Your task to perform on an android device: Open calendar and show me the fourth week of next month Image 0: 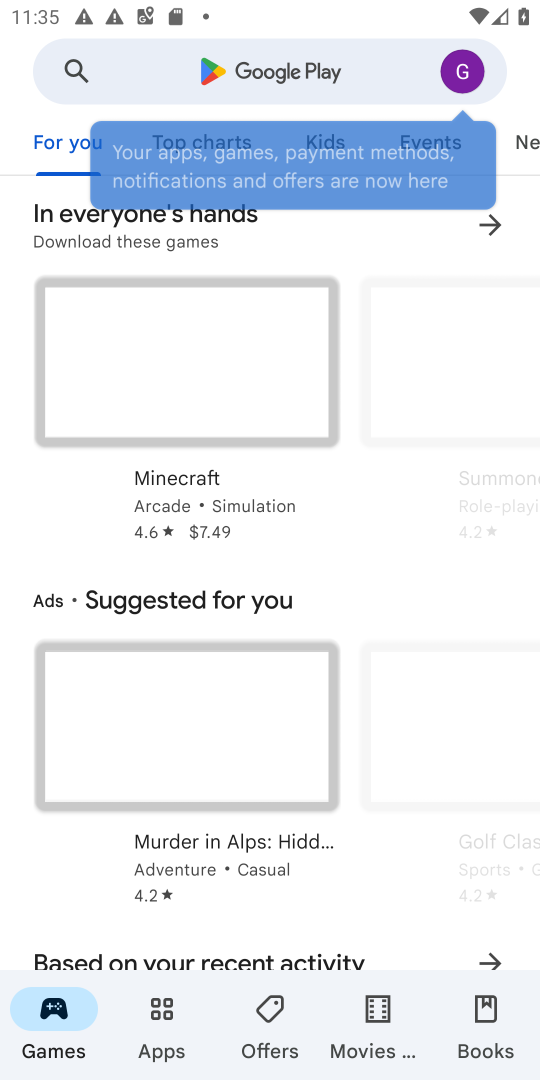
Step 0: press home button
Your task to perform on an android device: Open calendar and show me the fourth week of next month Image 1: 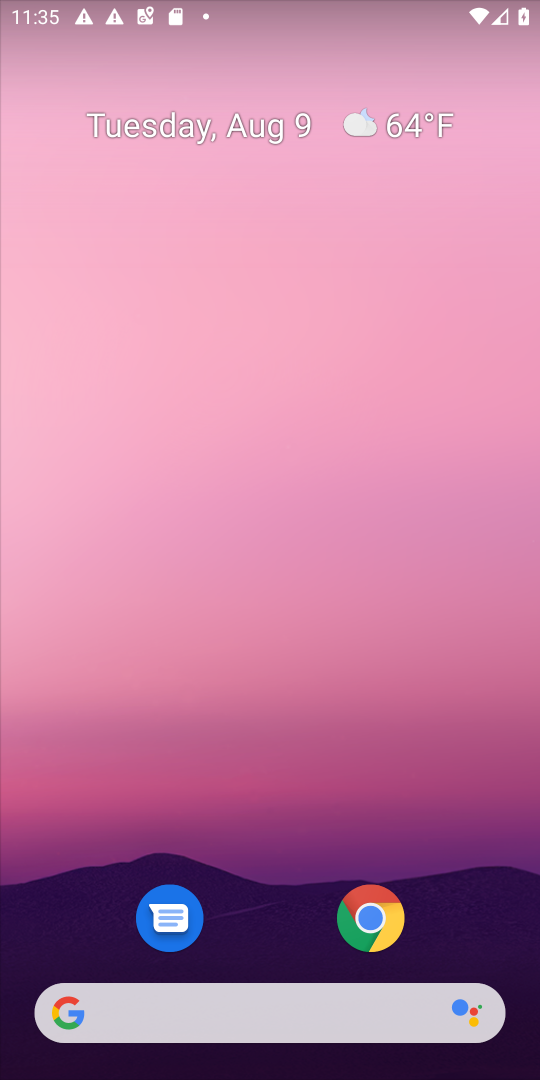
Step 1: drag from (268, 912) to (291, 244)
Your task to perform on an android device: Open calendar and show me the fourth week of next month Image 2: 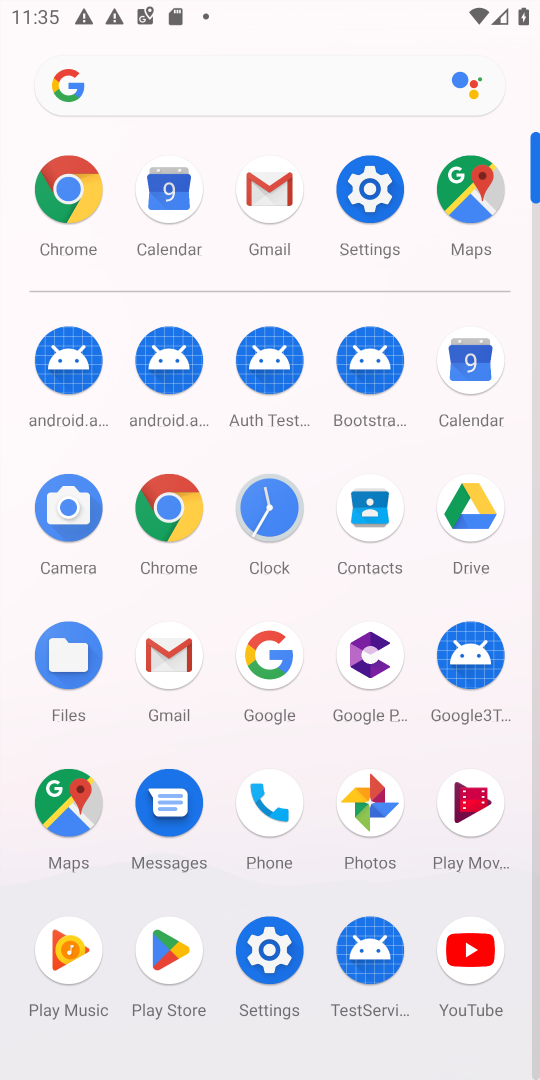
Step 2: click (465, 361)
Your task to perform on an android device: Open calendar and show me the fourth week of next month Image 3: 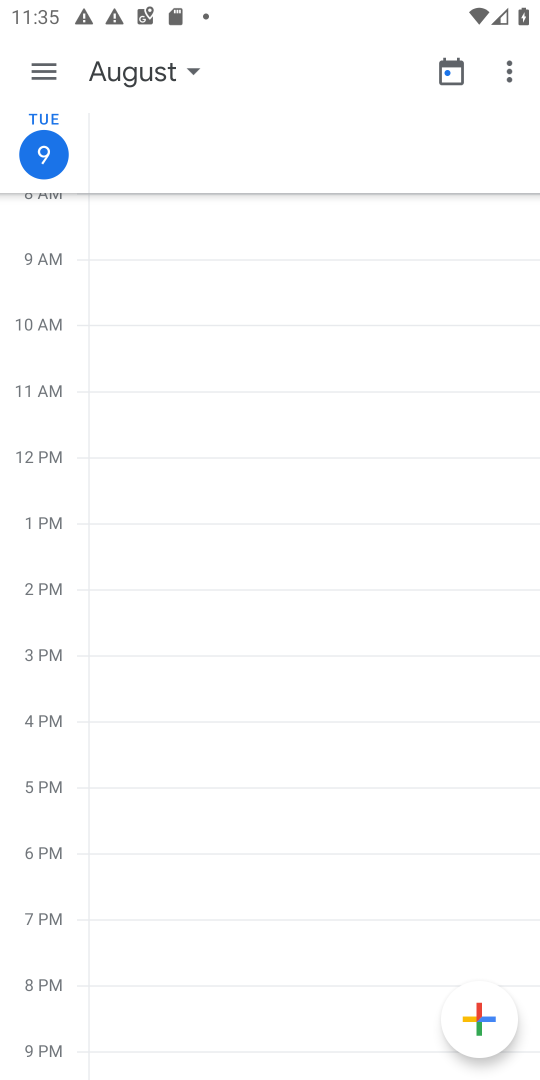
Step 3: click (165, 62)
Your task to perform on an android device: Open calendar and show me the fourth week of next month Image 4: 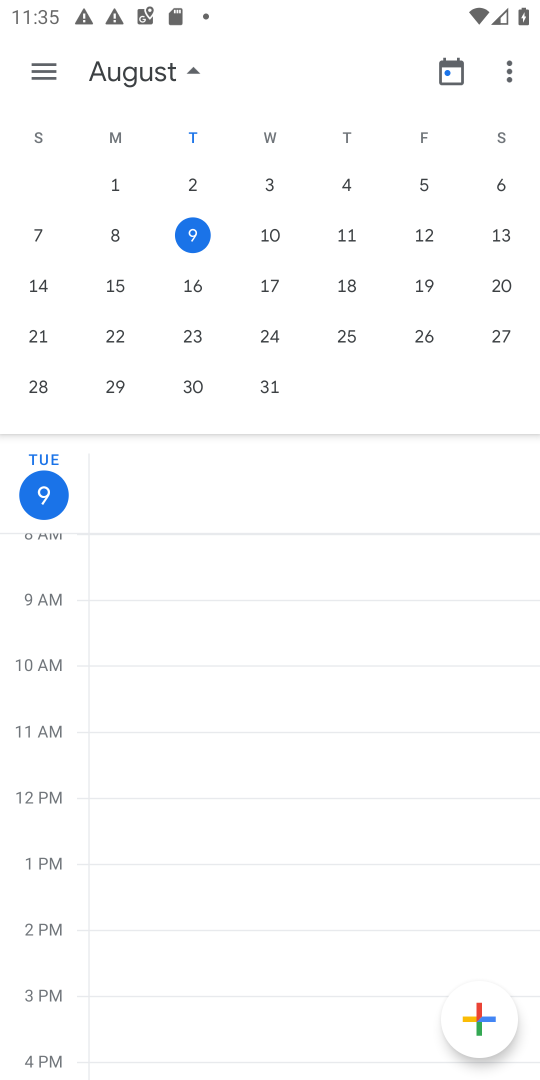
Step 4: drag from (452, 298) to (58, 307)
Your task to perform on an android device: Open calendar and show me the fourth week of next month Image 5: 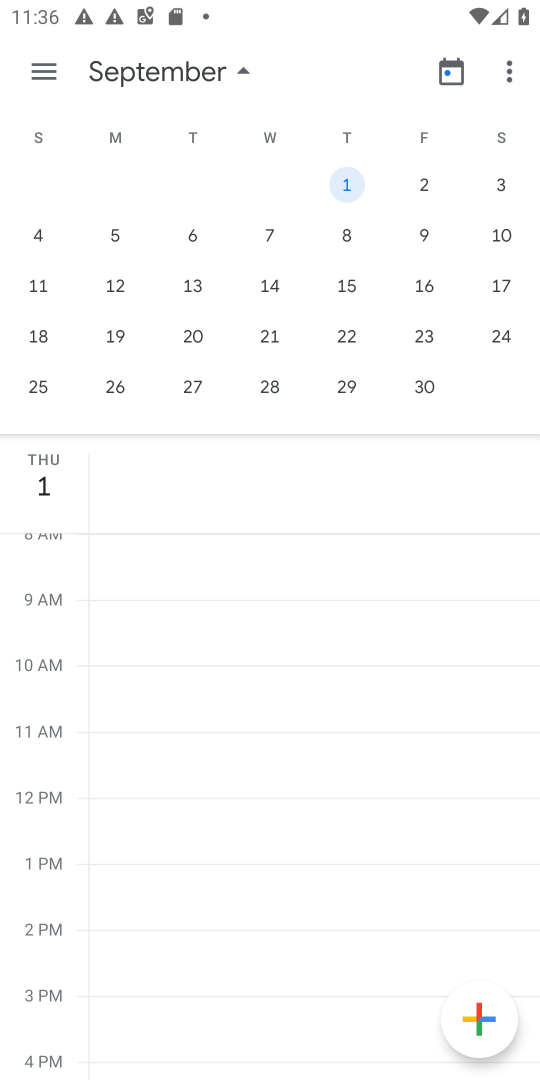
Step 5: click (200, 391)
Your task to perform on an android device: Open calendar and show me the fourth week of next month Image 6: 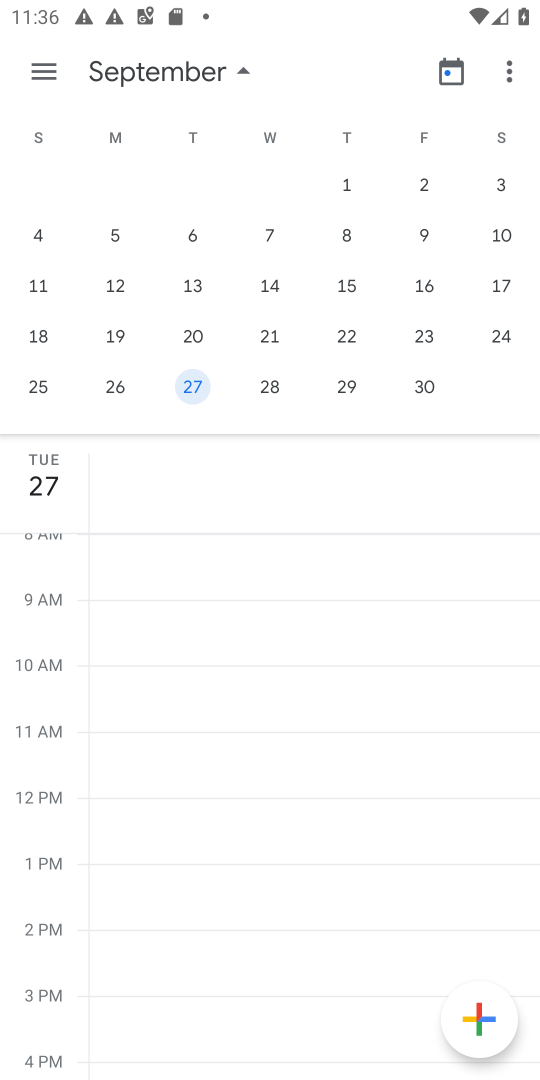
Step 6: click (56, 73)
Your task to perform on an android device: Open calendar and show me the fourth week of next month Image 7: 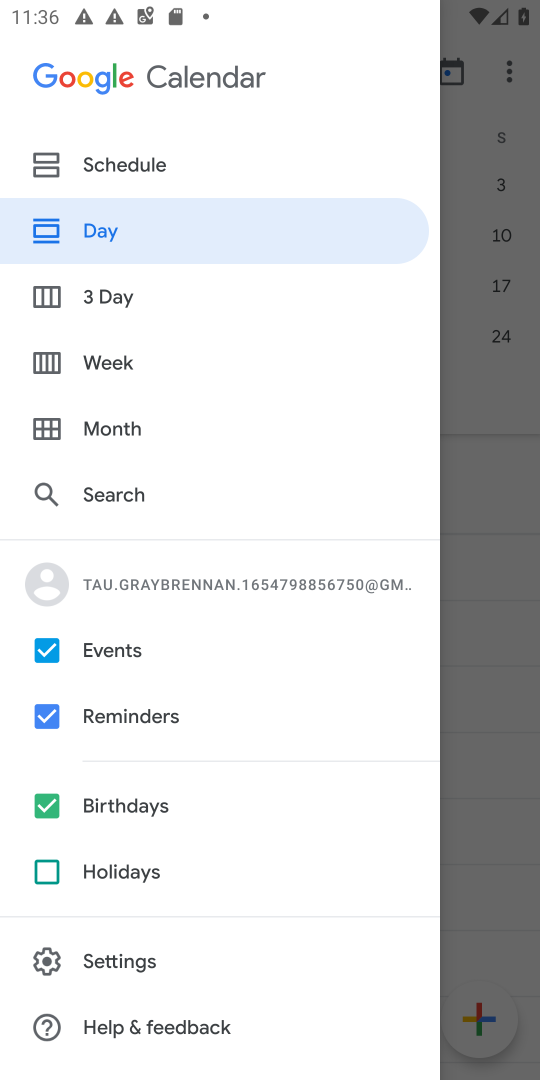
Step 7: click (108, 353)
Your task to perform on an android device: Open calendar and show me the fourth week of next month Image 8: 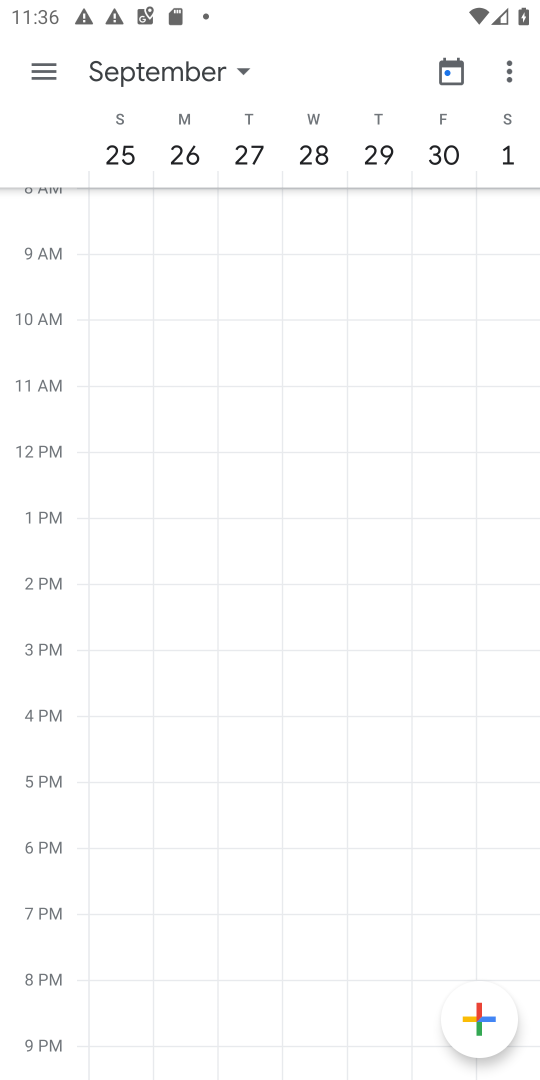
Step 8: task complete